Your task to perform on an android device: Open Maps and search for coffee Image 0: 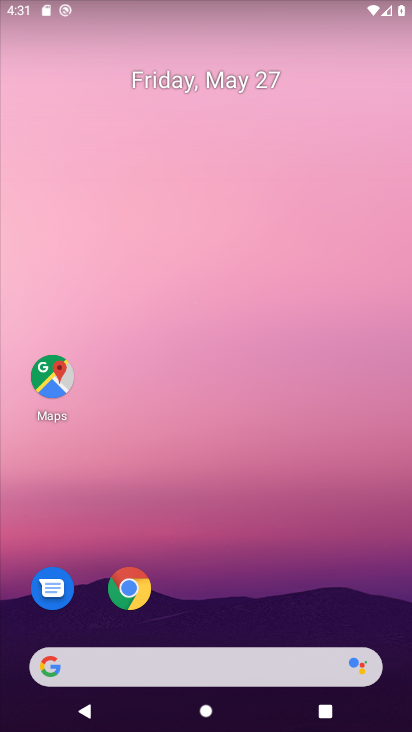
Step 0: click (53, 381)
Your task to perform on an android device: Open Maps and search for coffee Image 1: 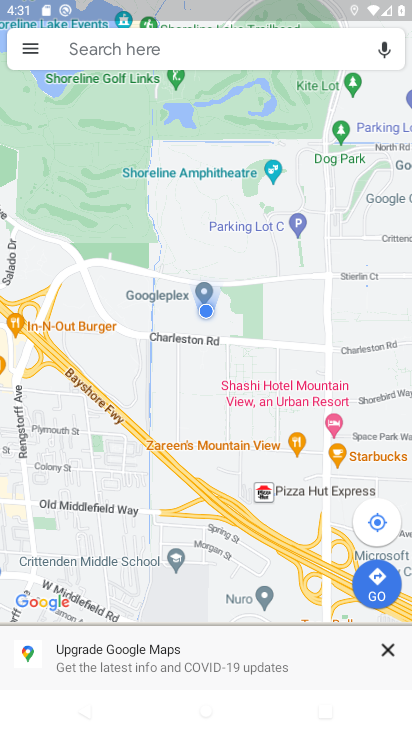
Step 1: click (210, 52)
Your task to perform on an android device: Open Maps and search for coffee Image 2: 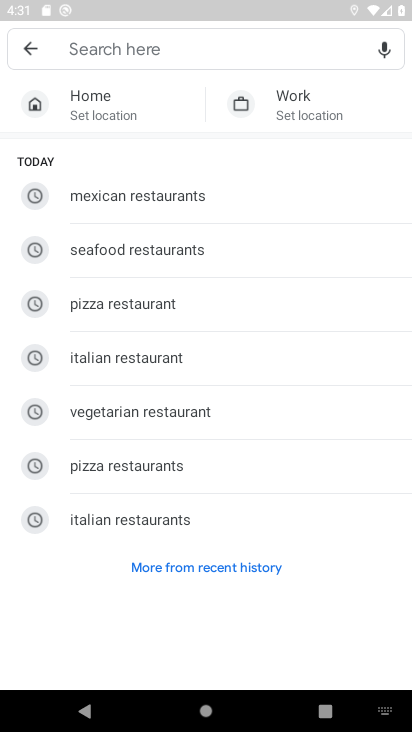
Step 2: type "coffe"
Your task to perform on an android device: Open Maps and search for coffee Image 3: 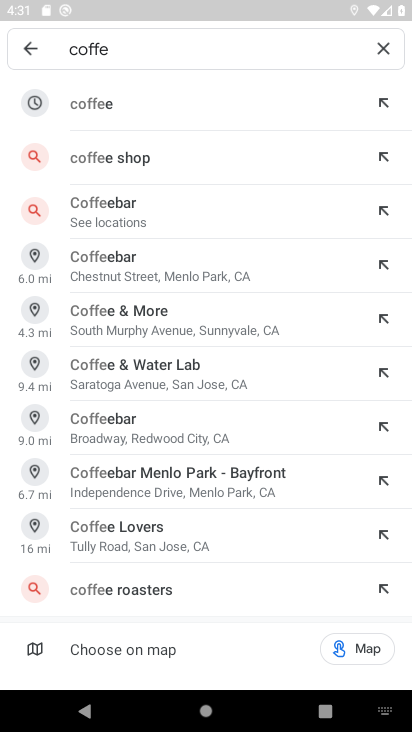
Step 3: click (79, 111)
Your task to perform on an android device: Open Maps and search for coffee Image 4: 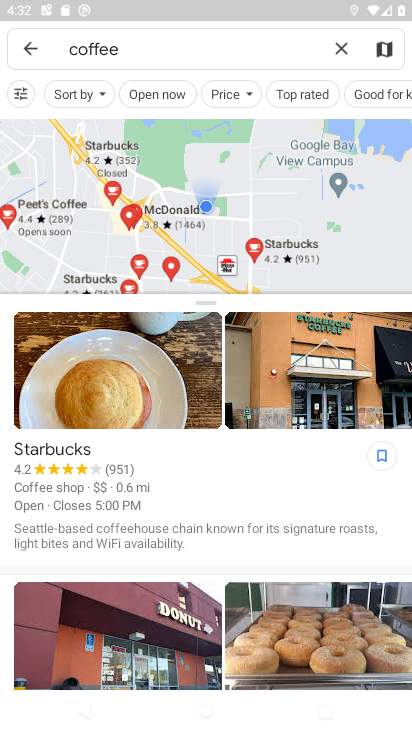
Step 4: task complete